Your task to perform on an android device: toggle javascript in the chrome app Image 0: 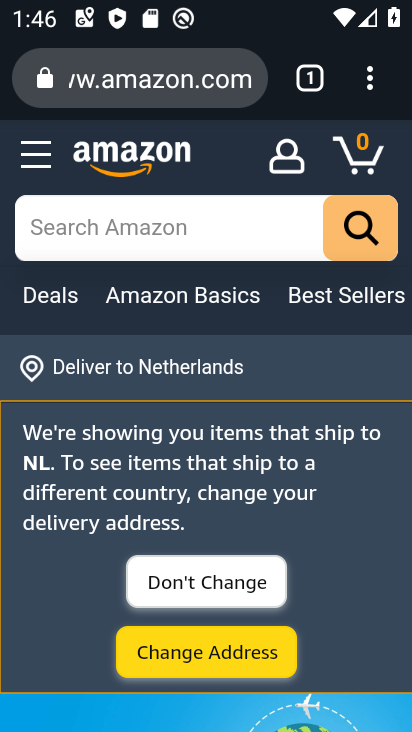
Step 0: press home button
Your task to perform on an android device: toggle javascript in the chrome app Image 1: 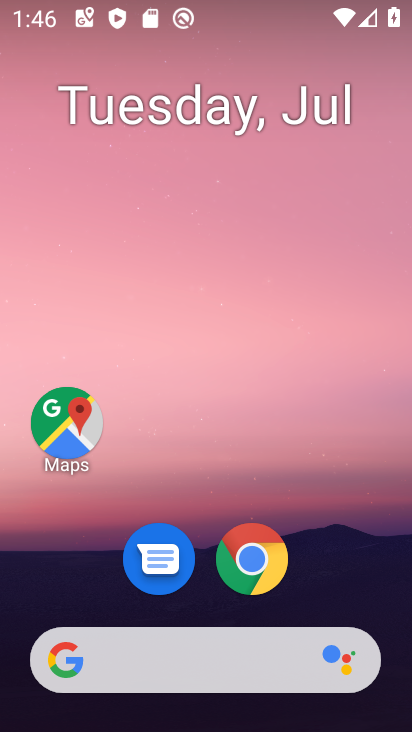
Step 1: drag from (354, 581) to (343, 120)
Your task to perform on an android device: toggle javascript in the chrome app Image 2: 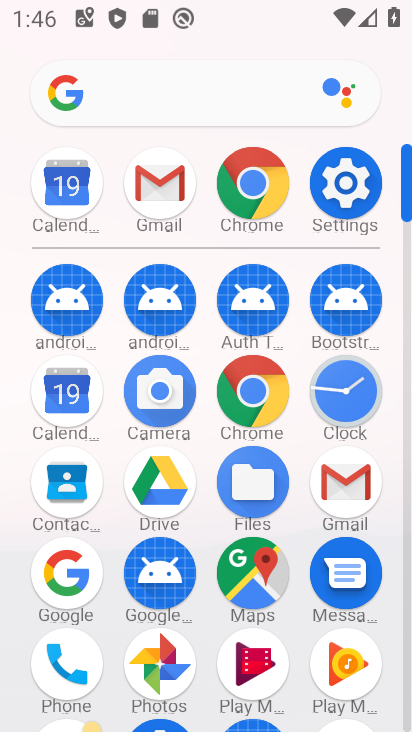
Step 2: click (260, 394)
Your task to perform on an android device: toggle javascript in the chrome app Image 3: 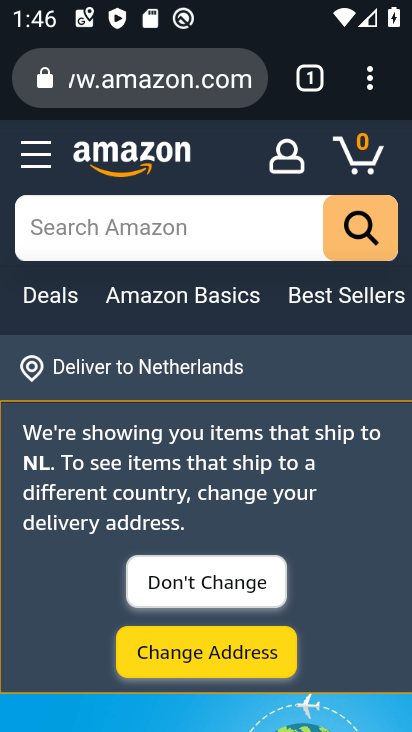
Step 3: click (371, 96)
Your task to perform on an android device: toggle javascript in the chrome app Image 4: 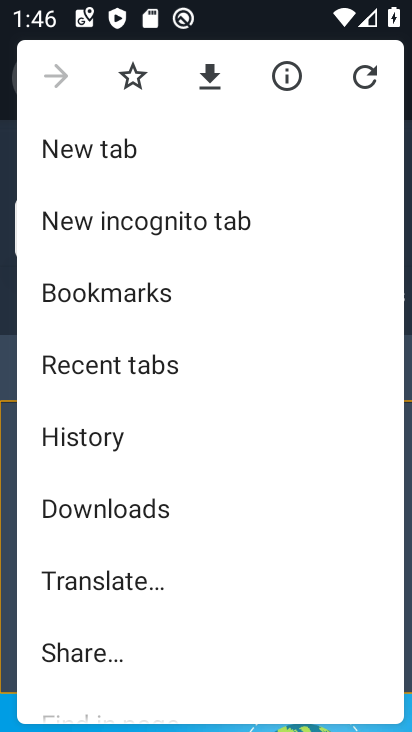
Step 4: drag from (335, 602) to (335, 500)
Your task to perform on an android device: toggle javascript in the chrome app Image 5: 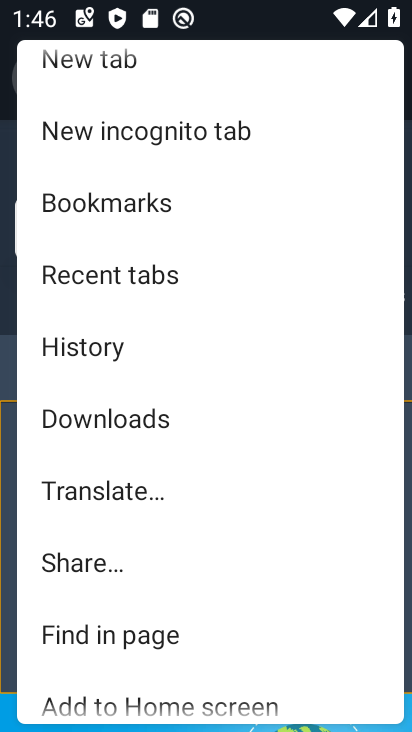
Step 5: drag from (305, 602) to (305, 504)
Your task to perform on an android device: toggle javascript in the chrome app Image 6: 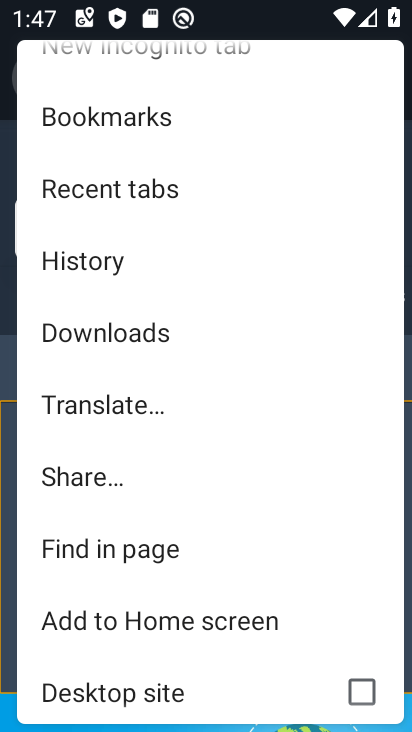
Step 6: drag from (321, 586) to (321, 479)
Your task to perform on an android device: toggle javascript in the chrome app Image 7: 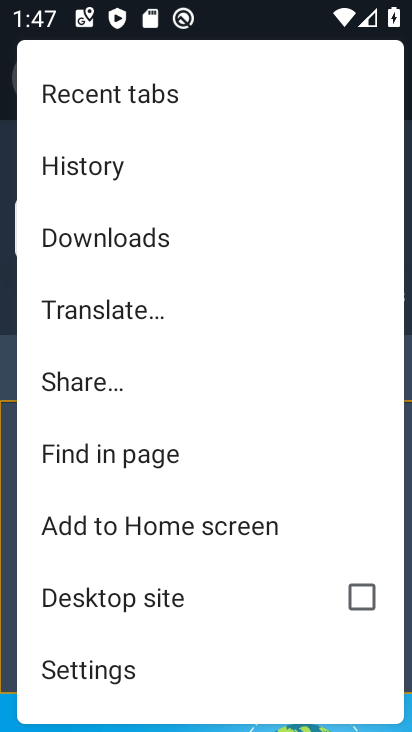
Step 7: drag from (280, 611) to (280, 445)
Your task to perform on an android device: toggle javascript in the chrome app Image 8: 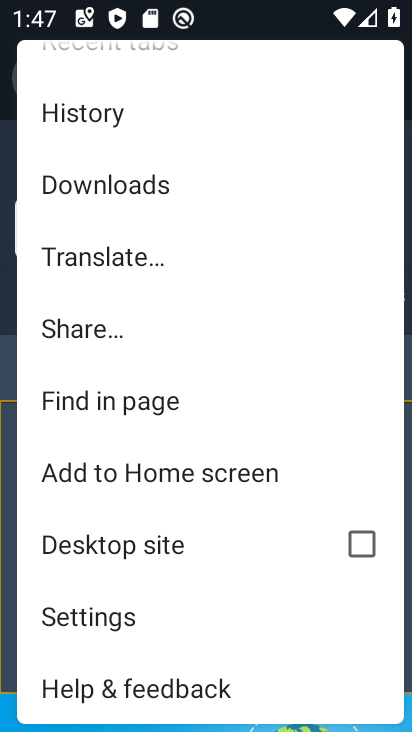
Step 8: click (181, 635)
Your task to perform on an android device: toggle javascript in the chrome app Image 9: 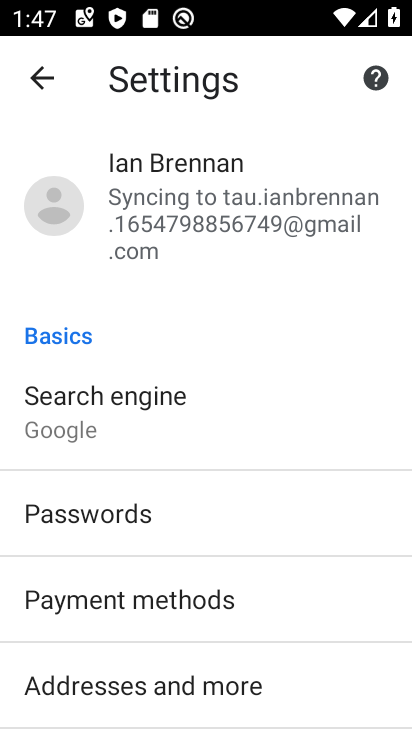
Step 9: drag from (361, 595) to (361, 493)
Your task to perform on an android device: toggle javascript in the chrome app Image 10: 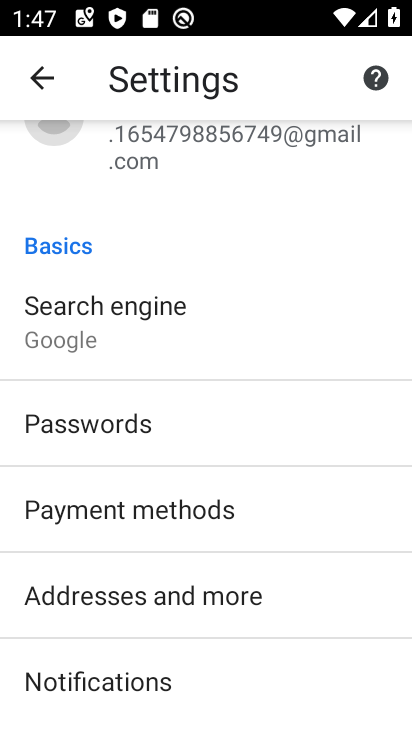
Step 10: drag from (348, 580) to (352, 480)
Your task to perform on an android device: toggle javascript in the chrome app Image 11: 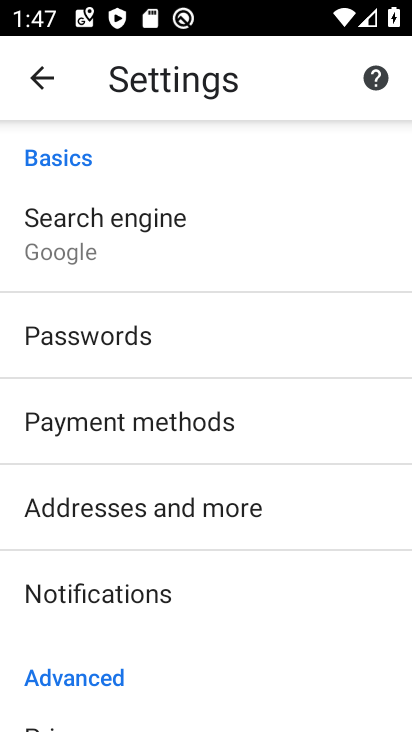
Step 11: drag from (352, 575) to (367, 451)
Your task to perform on an android device: toggle javascript in the chrome app Image 12: 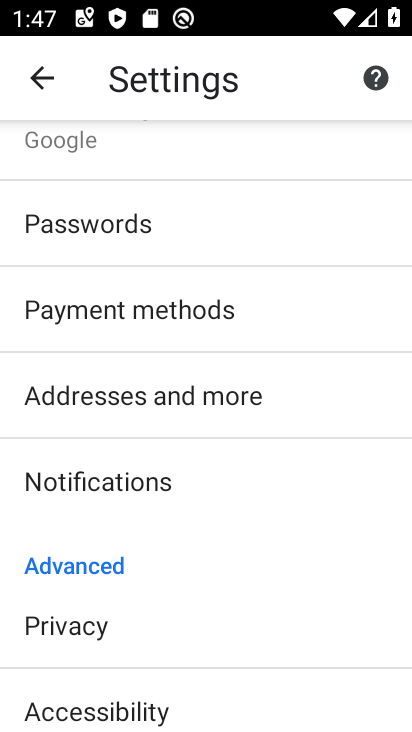
Step 12: drag from (346, 575) to (341, 427)
Your task to perform on an android device: toggle javascript in the chrome app Image 13: 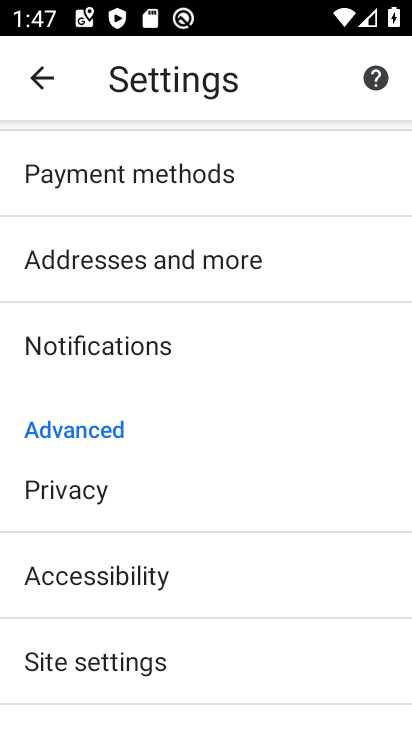
Step 13: drag from (306, 566) to (309, 438)
Your task to perform on an android device: toggle javascript in the chrome app Image 14: 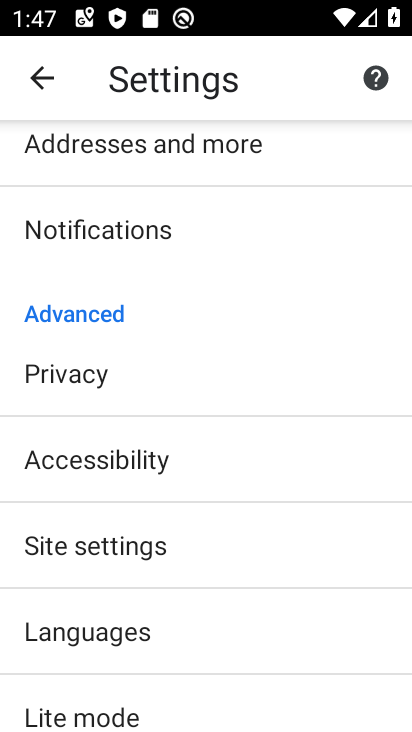
Step 14: click (308, 546)
Your task to perform on an android device: toggle javascript in the chrome app Image 15: 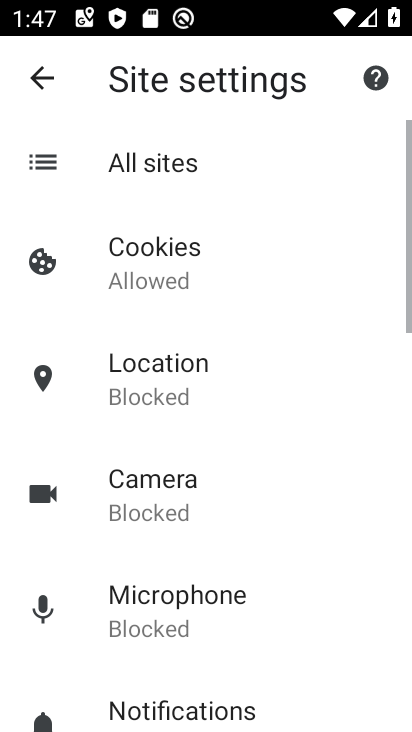
Step 15: drag from (312, 539) to (327, 443)
Your task to perform on an android device: toggle javascript in the chrome app Image 16: 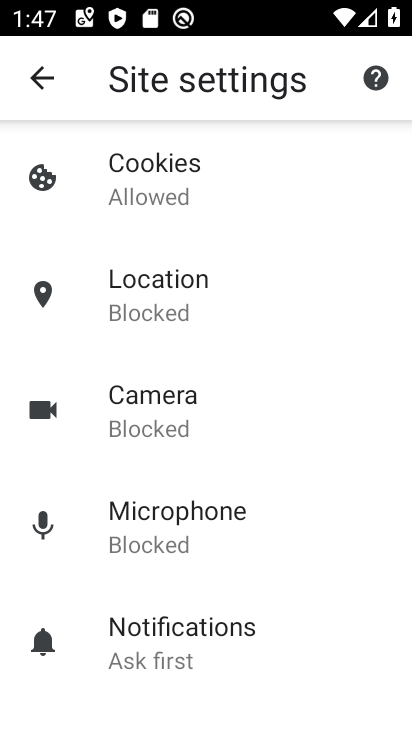
Step 16: drag from (313, 547) to (316, 446)
Your task to perform on an android device: toggle javascript in the chrome app Image 17: 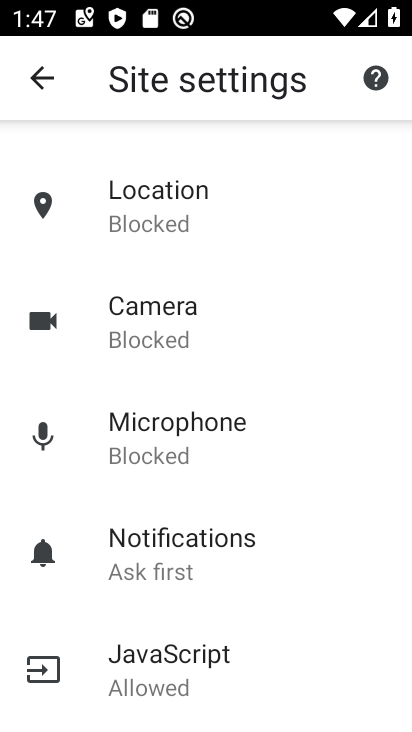
Step 17: drag from (328, 483) to (336, 399)
Your task to perform on an android device: toggle javascript in the chrome app Image 18: 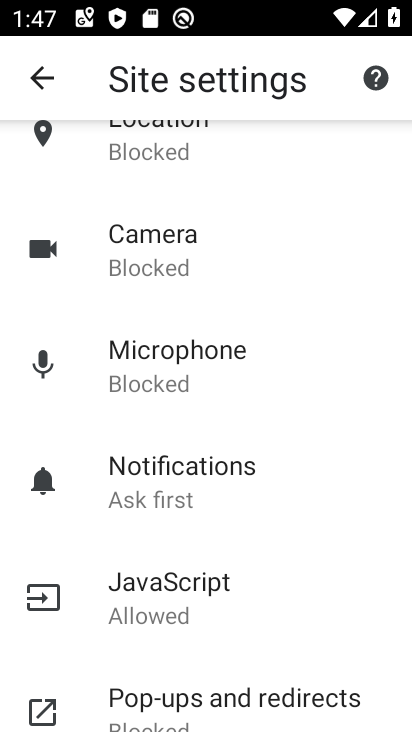
Step 18: drag from (338, 540) to (356, 421)
Your task to perform on an android device: toggle javascript in the chrome app Image 19: 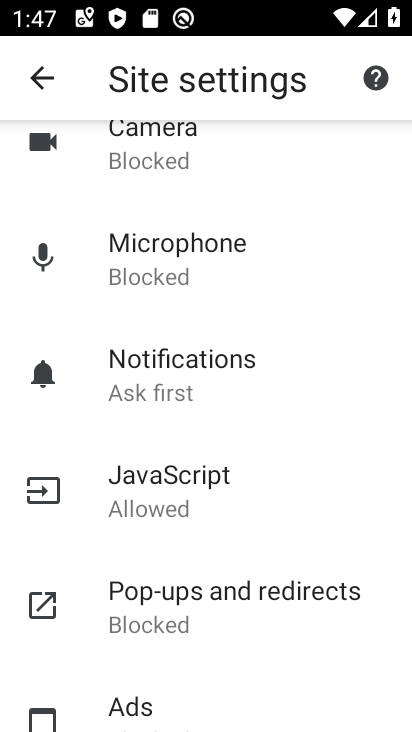
Step 19: drag from (343, 541) to (358, 398)
Your task to perform on an android device: toggle javascript in the chrome app Image 20: 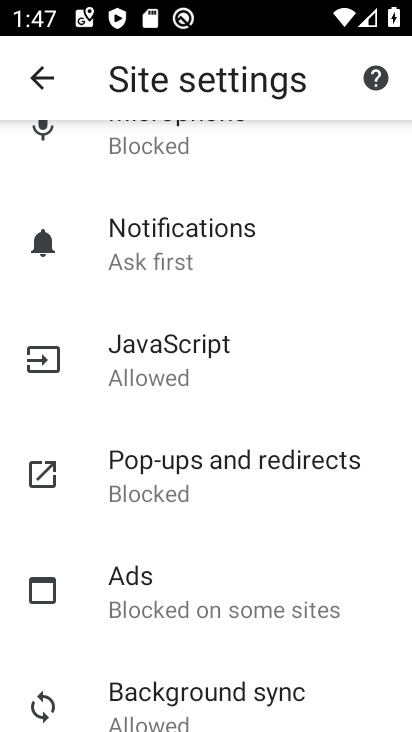
Step 20: click (324, 376)
Your task to perform on an android device: toggle javascript in the chrome app Image 21: 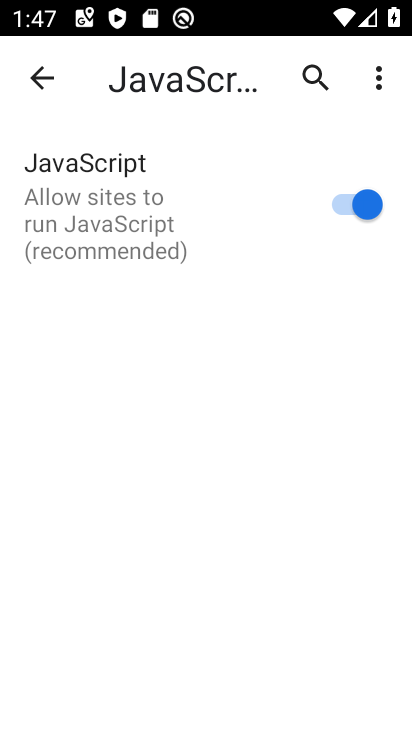
Step 21: click (373, 185)
Your task to perform on an android device: toggle javascript in the chrome app Image 22: 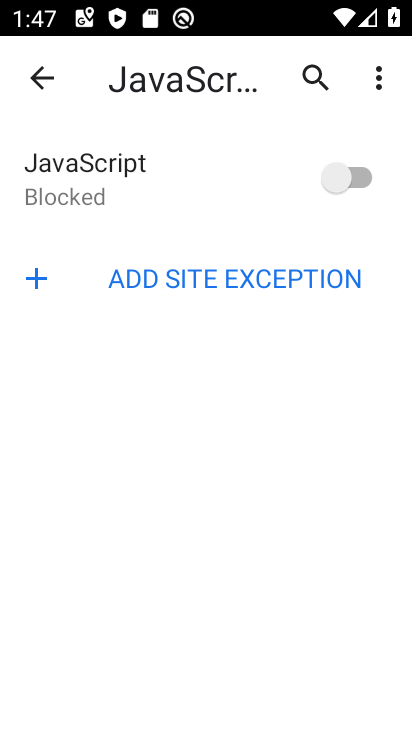
Step 22: task complete